Your task to perform on an android device: set the timer Image 0: 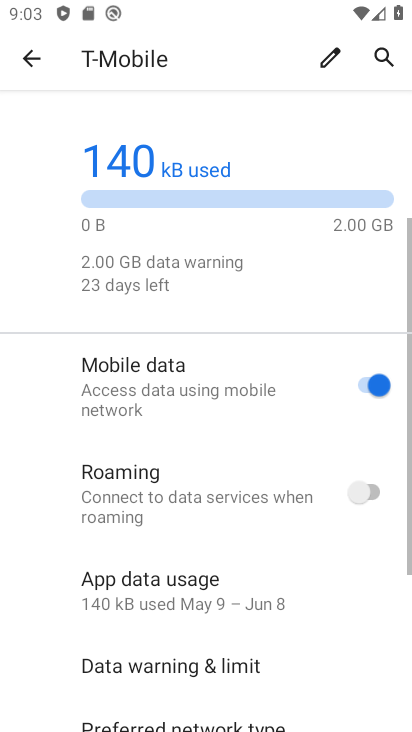
Step 0: drag from (271, 585) to (304, 12)
Your task to perform on an android device: set the timer Image 1: 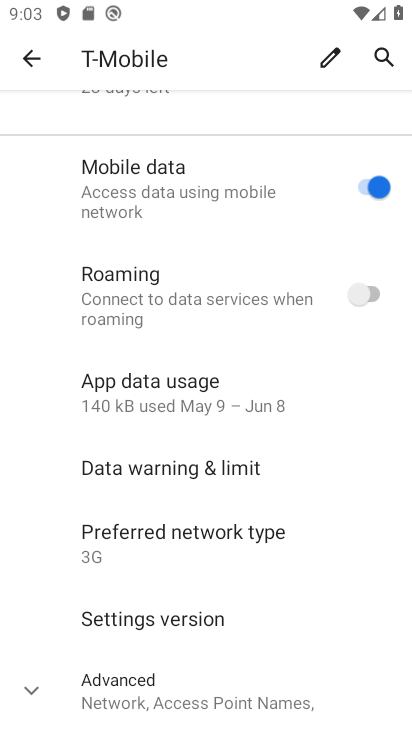
Step 1: press home button
Your task to perform on an android device: set the timer Image 2: 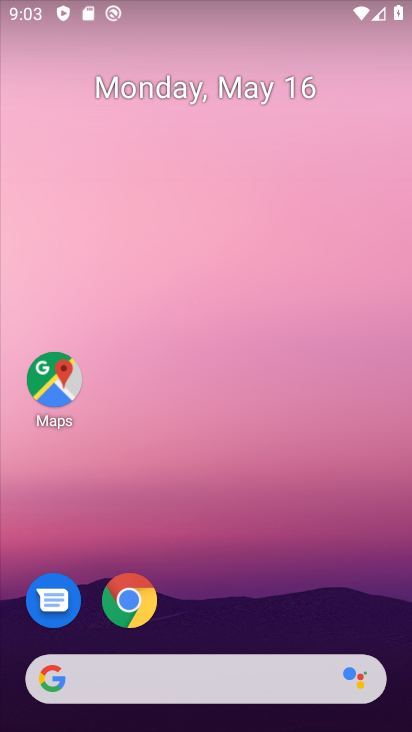
Step 2: drag from (224, 626) to (206, 91)
Your task to perform on an android device: set the timer Image 3: 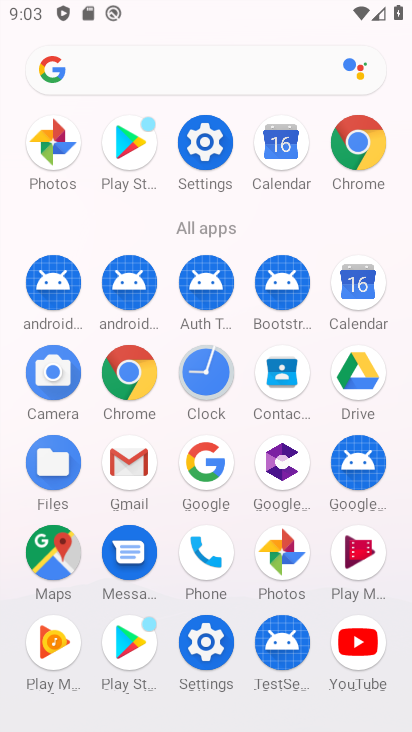
Step 3: click (198, 399)
Your task to perform on an android device: set the timer Image 4: 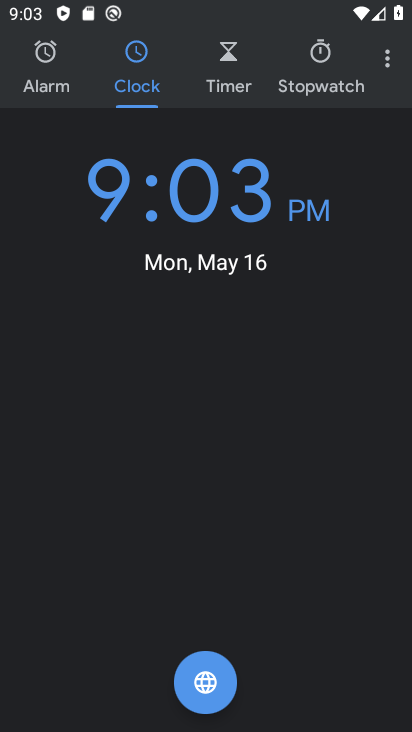
Step 4: click (226, 68)
Your task to perform on an android device: set the timer Image 5: 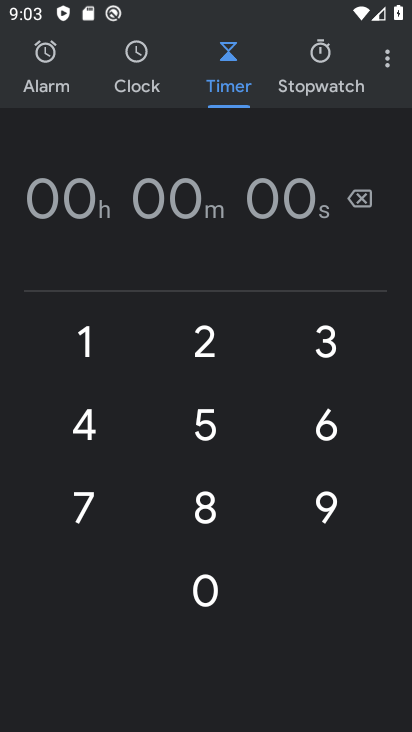
Step 5: click (204, 346)
Your task to perform on an android device: set the timer Image 6: 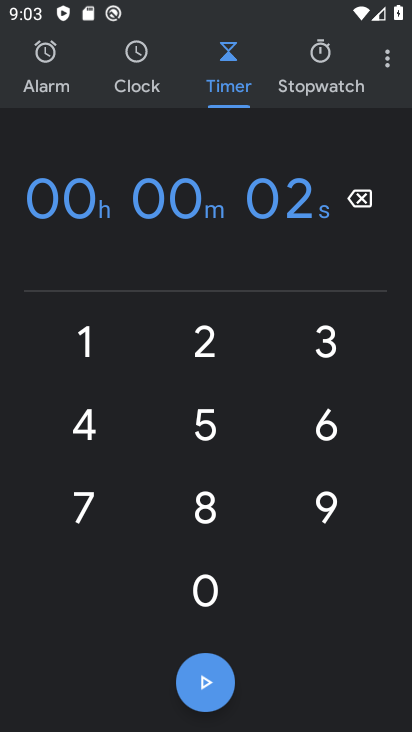
Step 6: click (200, 584)
Your task to perform on an android device: set the timer Image 7: 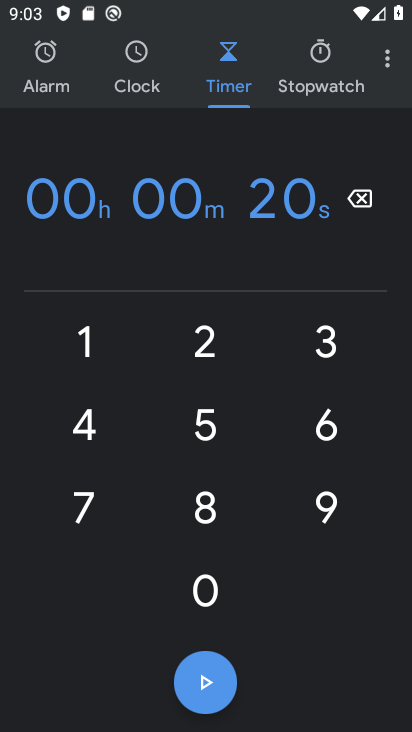
Step 7: click (209, 371)
Your task to perform on an android device: set the timer Image 8: 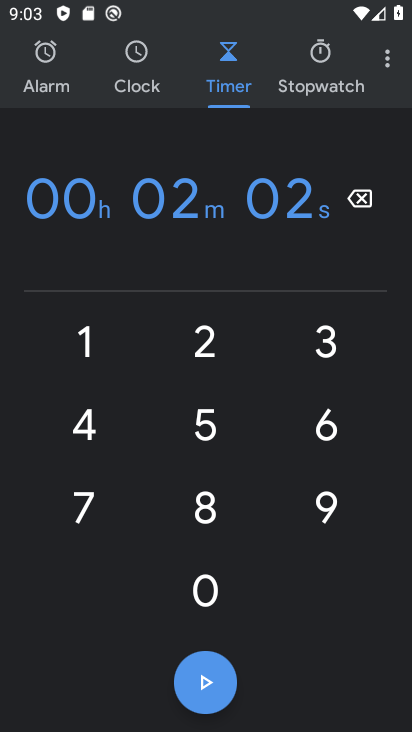
Step 8: click (197, 608)
Your task to perform on an android device: set the timer Image 9: 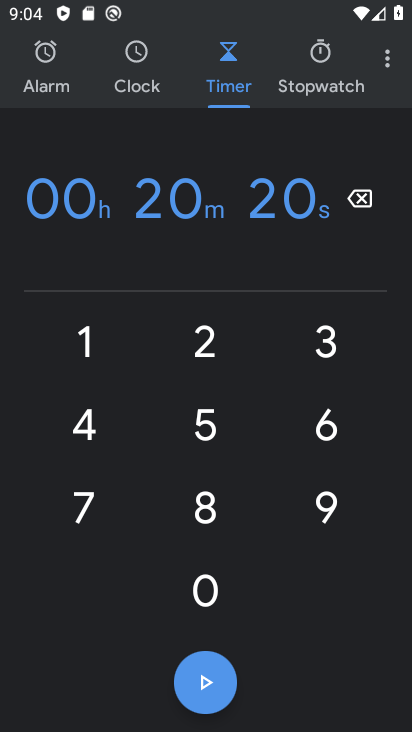
Step 9: click (196, 678)
Your task to perform on an android device: set the timer Image 10: 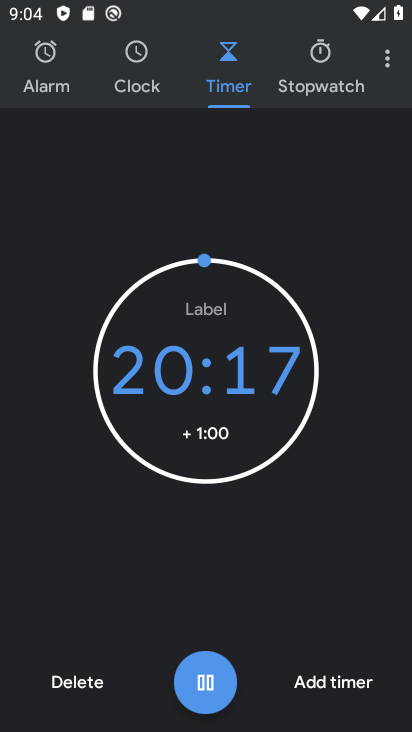
Step 10: click (319, 674)
Your task to perform on an android device: set the timer Image 11: 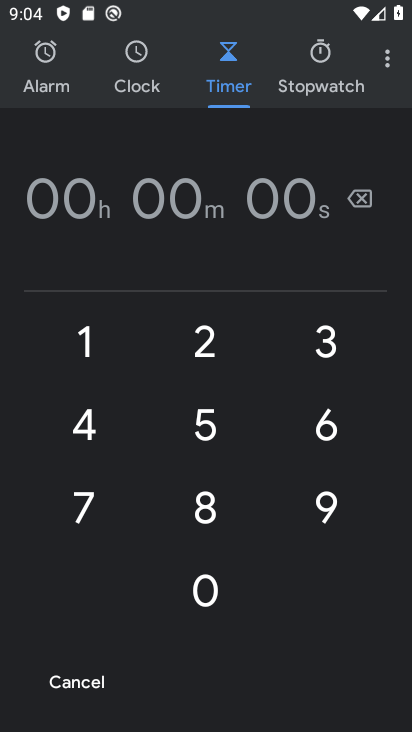
Step 11: task complete